Your task to perform on an android device: Show me popular games on the Play Store Image 0: 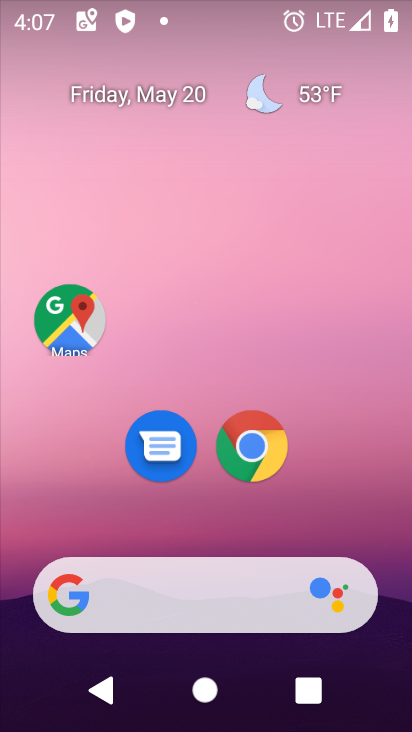
Step 0: drag from (368, 523) to (387, 129)
Your task to perform on an android device: Show me popular games on the Play Store Image 1: 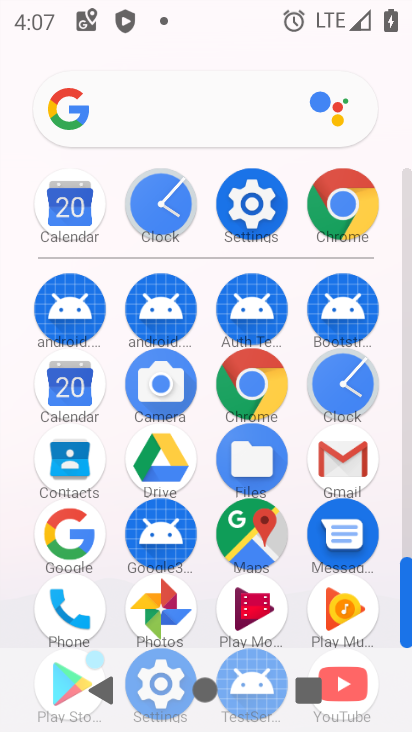
Step 1: drag from (389, 535) to (401, 189)
Your task to perform on an android device: Show me popular games on the Play Store Image 2: 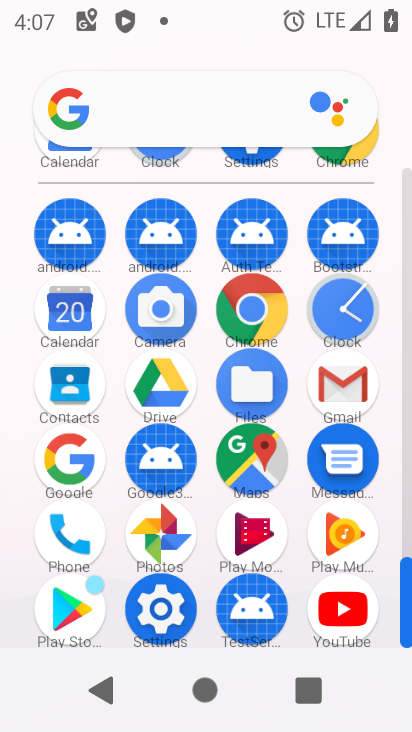
Step 2: click (46, 630)
Your task to perform on an android device: Show me popular games on the Play Store Image 3: 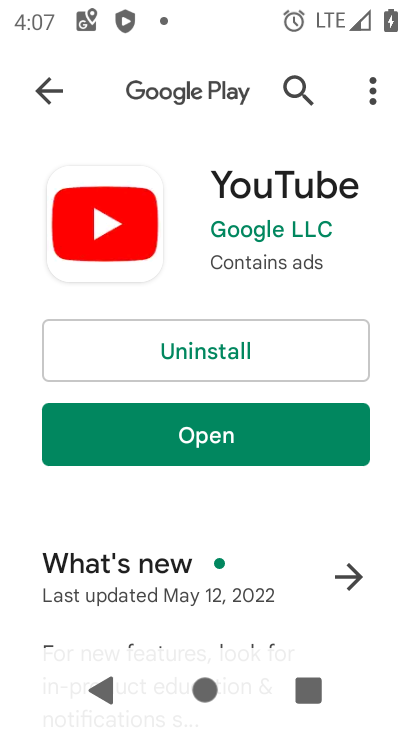
Step 3: click (191, 447)
Your task to perform on an android device: Show me popular games on the Play Store Image 4: 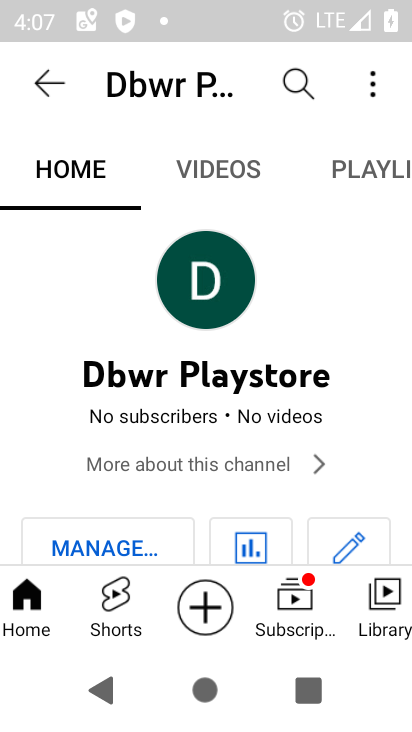
Step 4: click (70, 100)
Your task to perform on an android device: Show me popular games on the Play Store Image 5: 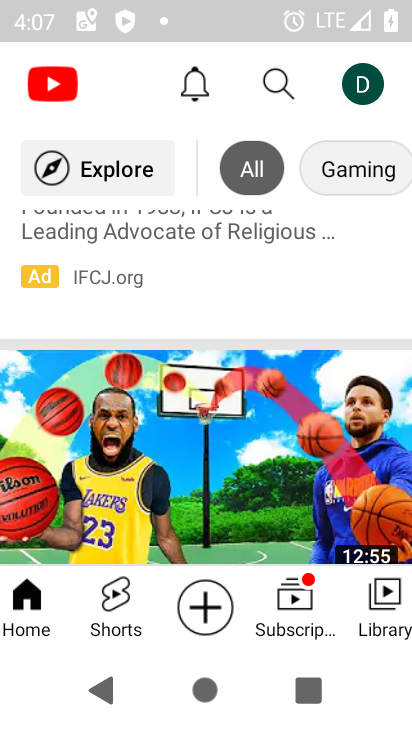
Step 5: click (276, 75)
Your task to perform on an android device: Show me popular games on the Play Store Image 6: 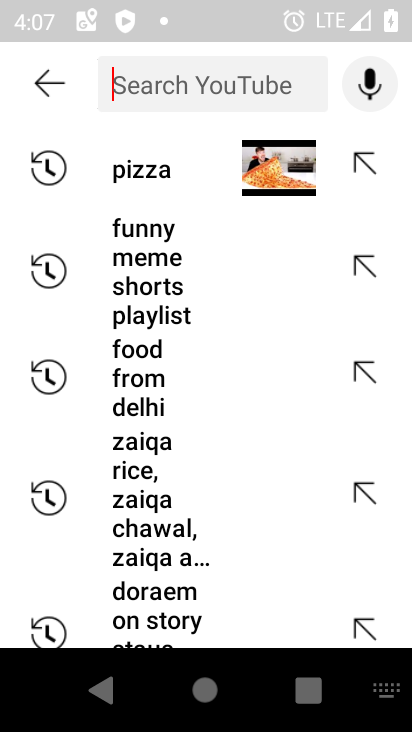
Step 6: type "popular games"
Your task to perform on an android device: Show me popular games on the Play Store Image 7: 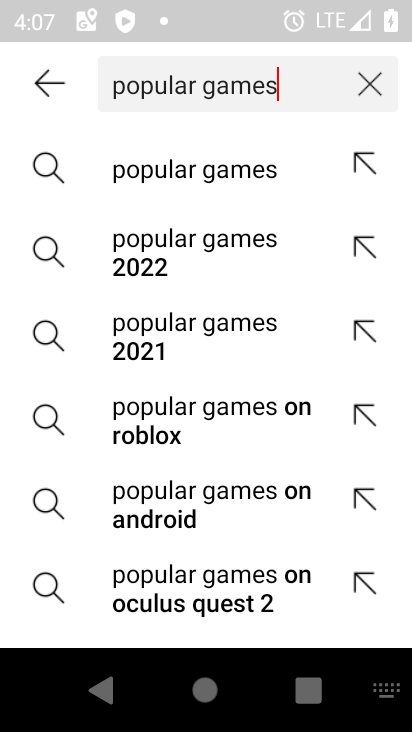
Step 7: click (199, 184)
Your task to perform on an android device: Show me popular games on the Play Store Image 8: 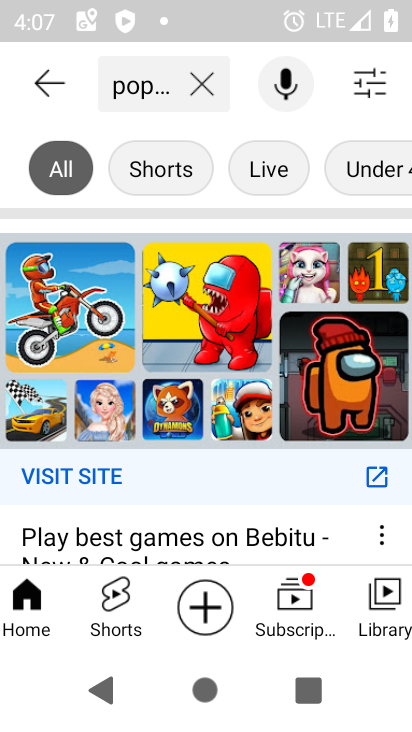
Step 8: task complete